Your task to perform on an android device: turn vacation reply on in the gmail app Image 0: 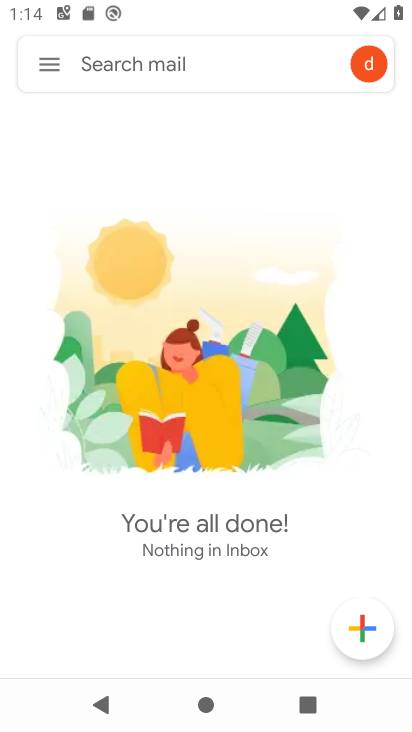
Step 0: click (47, 68)
Your task to perform on an android device: turn vacation reply on in the gmail app Image 1: 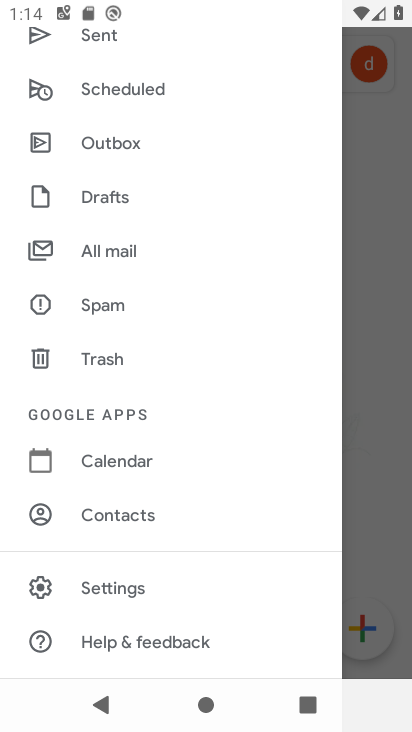
Step 1: click (134, 583)
Your task to perform on an android device: turn vacation reply on in the gmail app Image 2: 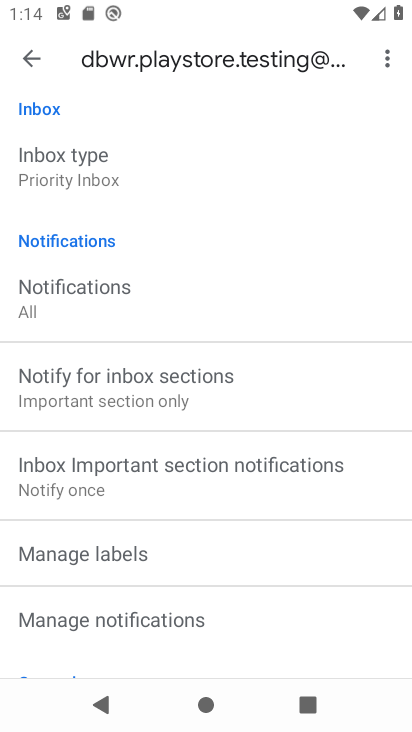
Step 2: drag from (142, 562) to (91, 47)
Your task to perform on an android device: turn vacation reply on in the gmail app Image 3: 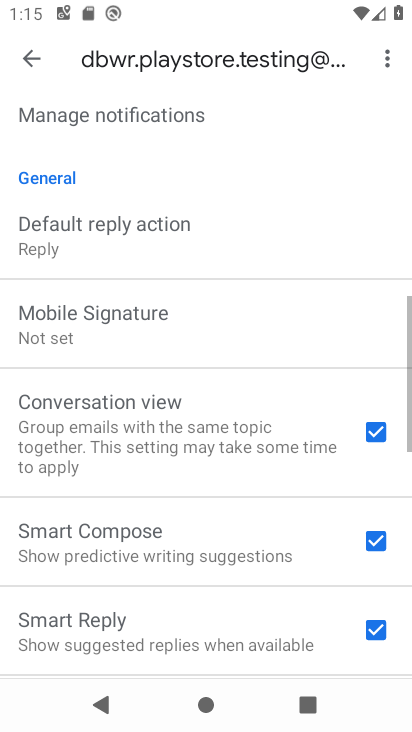
Step 3: drag from (215, 579) to (275, 48)
Your task to perform on an android device: turn vacation reply on in the gmail app Image 4: 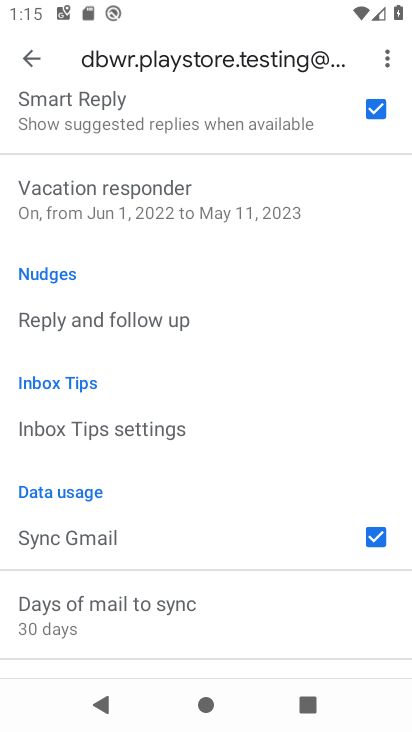
Step 4: click (187, 192)
Your task to perform on an android device: turn vacation reply on in the gmail app Image 5: 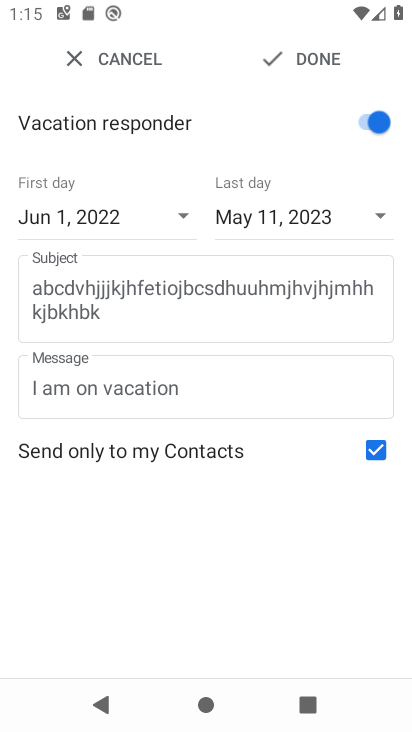
Step 5: click (282, 61)
Your task to perform on an android device: turn vacation reply on in the gmail app Image 6: 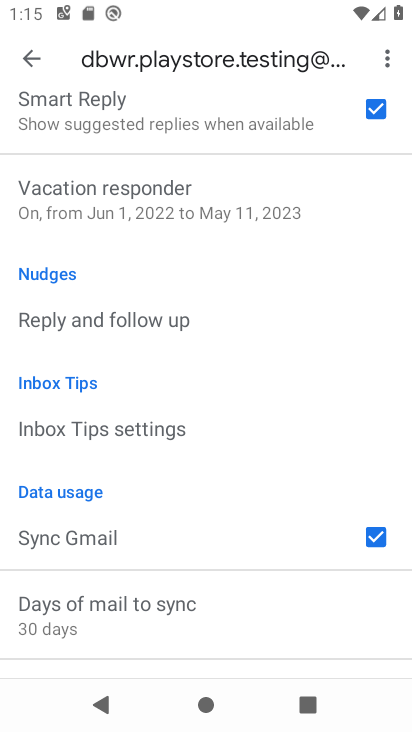
Step 6: task complete